Your task to perform on an android device: snooze an email in the gmail app Image 0: 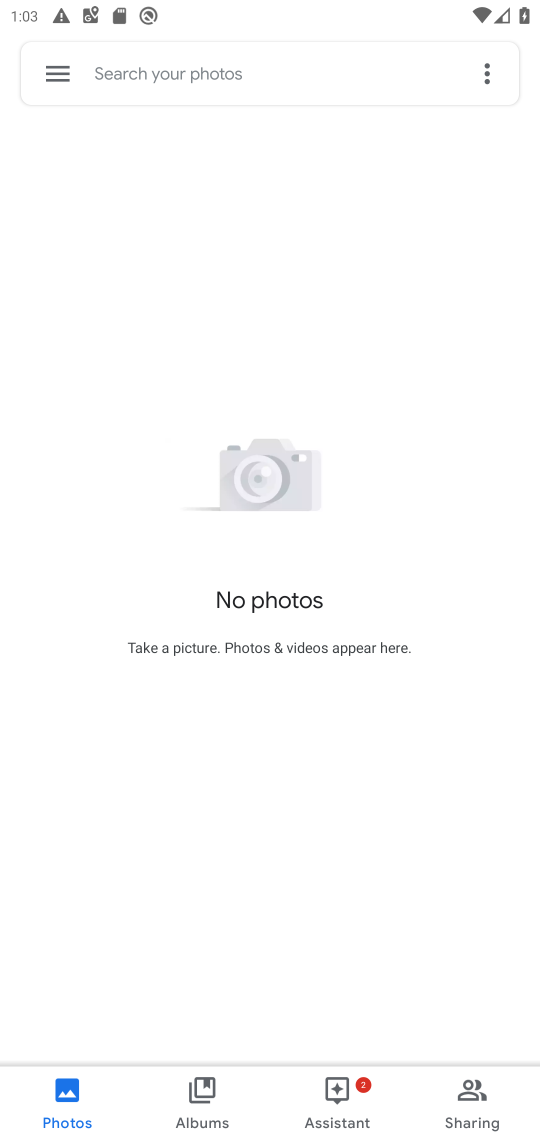
Step 0: press home button
Your task to perform on an android device: snooze an email in the gmail app Image 1: 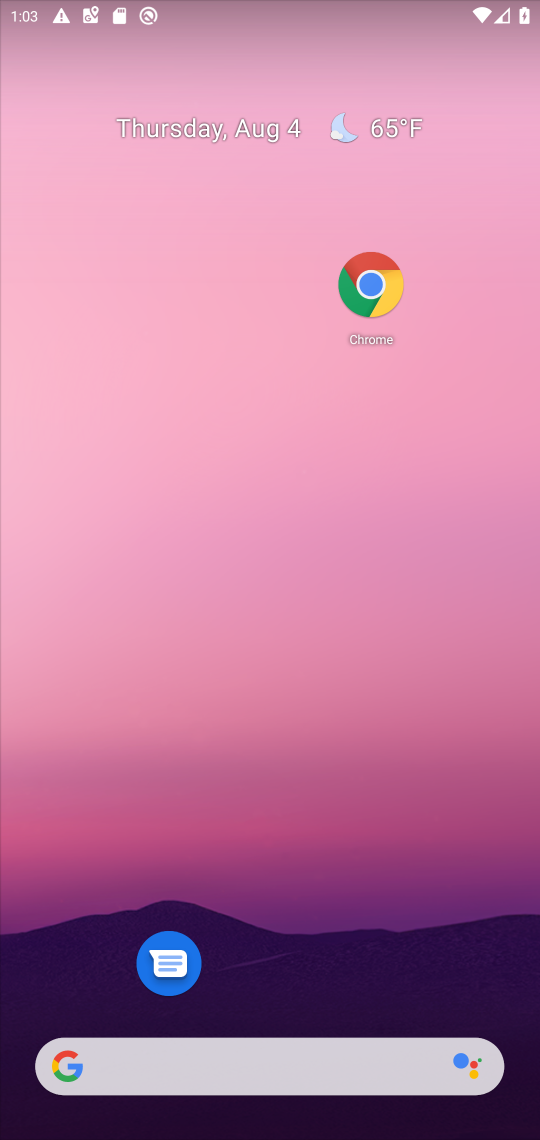
Step 1: drag from (270, 994) to (287, 369)
Your task to perform on an android device: snooze an email in the gmail app Image 2: 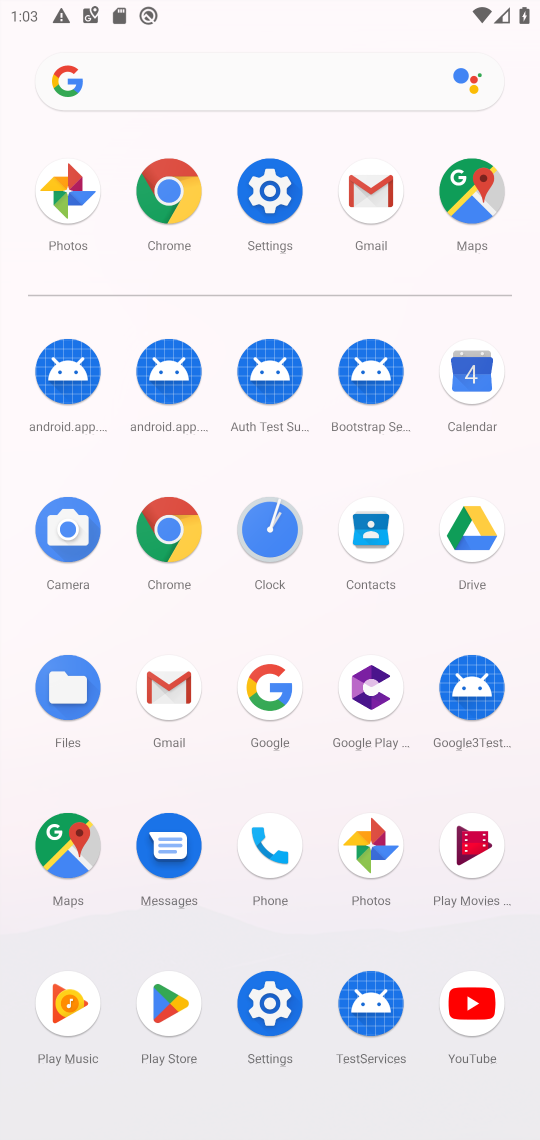
Step 2: click (177, 684)
Your task to perform on an android device: snooze an email in the gmail app Image 3: 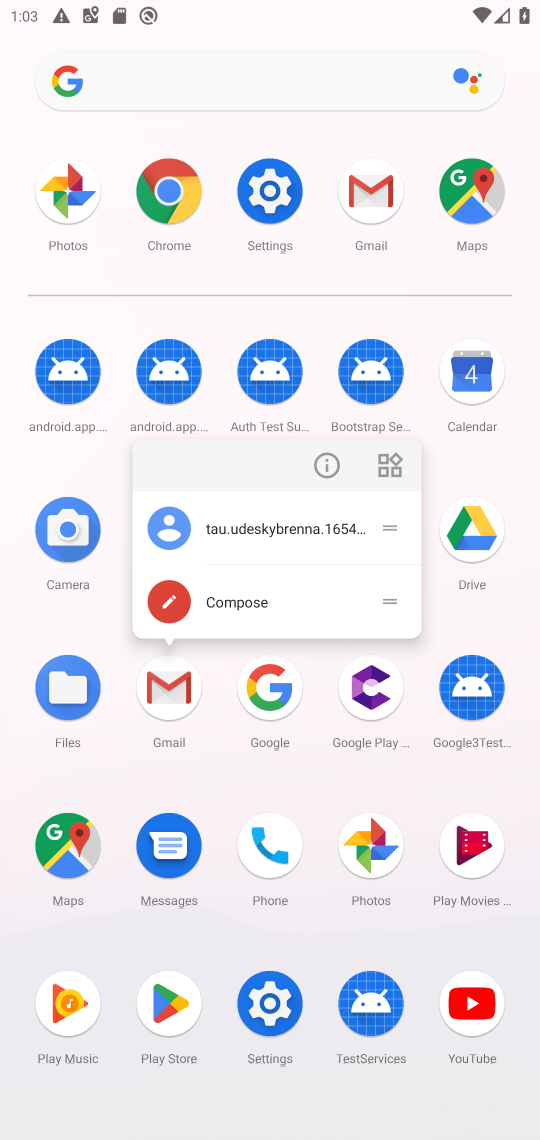
Step 3: click (177, 684)
Your task to perform on an android device: snooze an email in the gmail app Image 4: 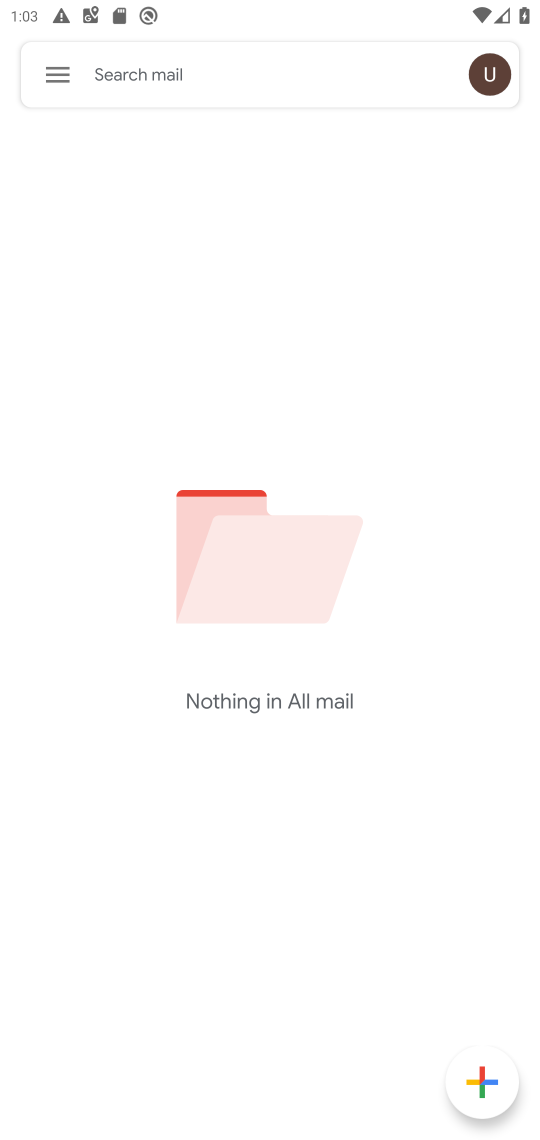
Step 4: click (67, 67)
Your task to perform on an android device: snooze an email in the gmail app Image 5: 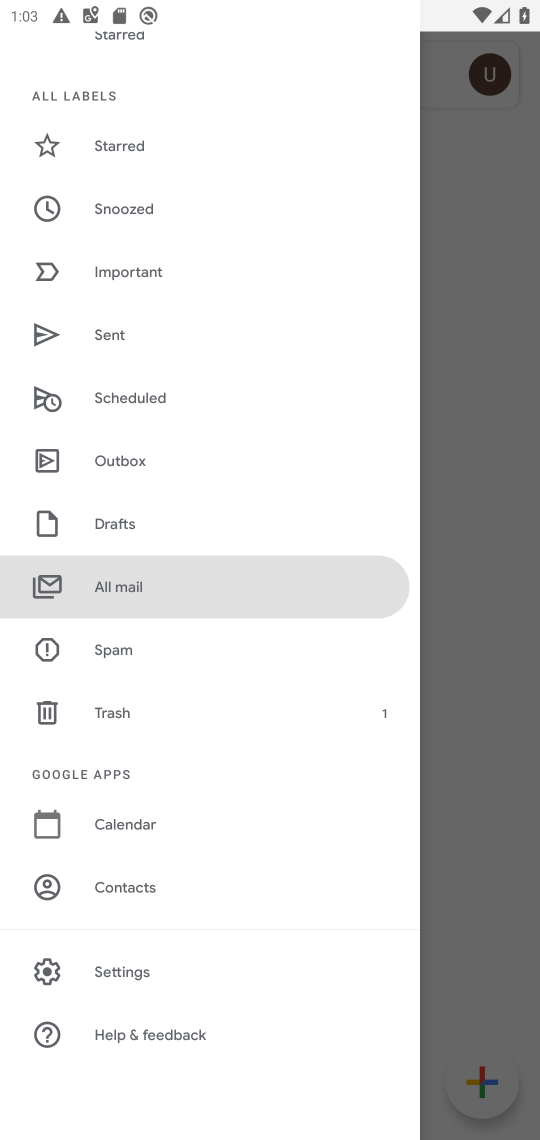
Step 5: click (146, 202)
Your task to perform on an android device: snooze an email in the gmail app Image 6: 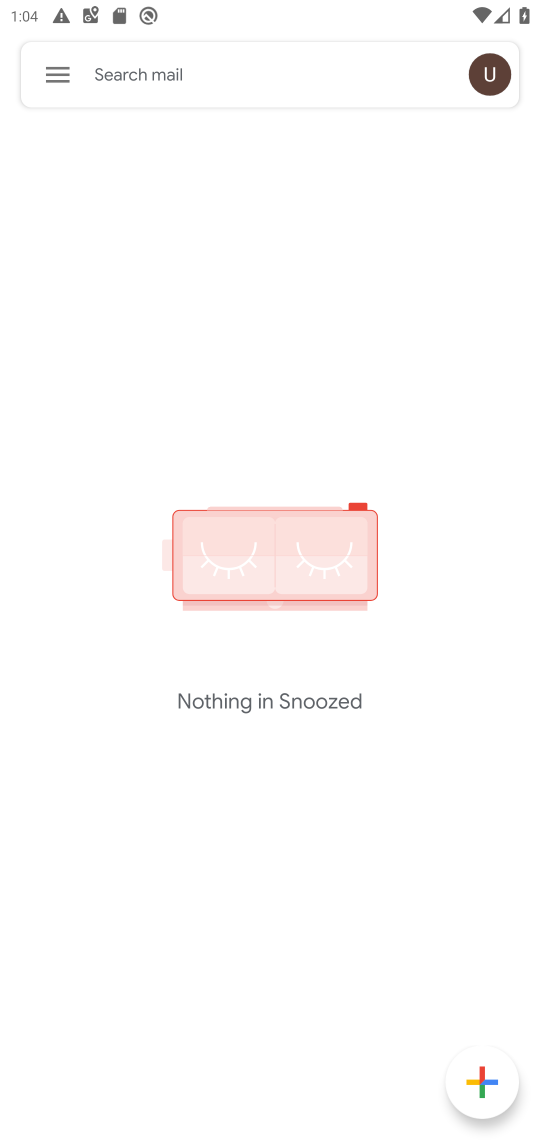
Step 6: task complete